Your task to perform on an android device: Show me productivity apps on the Play Store Image 0: 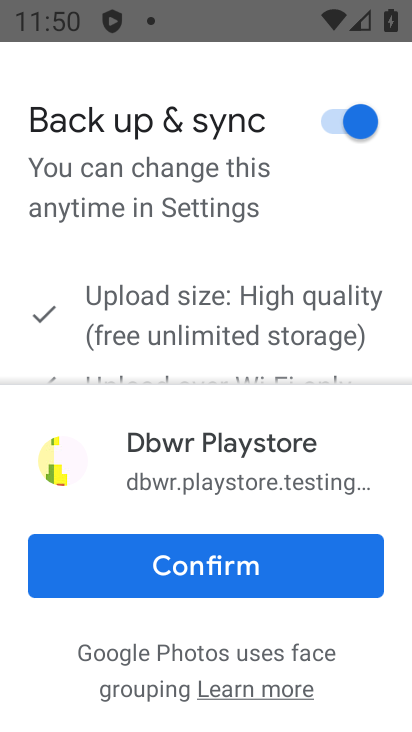
Step 0: press home button
Your task to perform on an android device: Show me productivity apps on the Play Store Image 1: 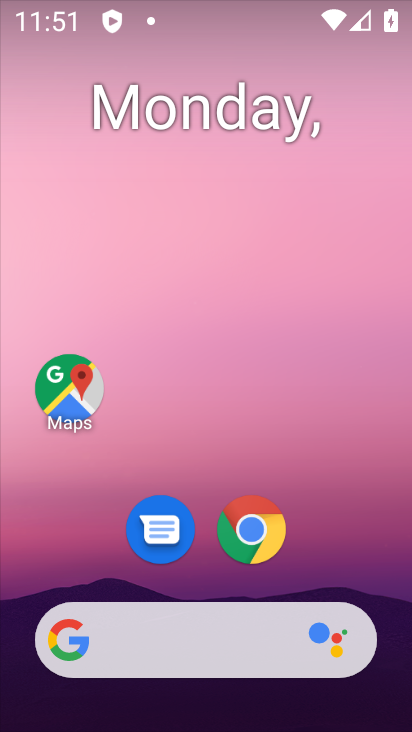
Step 1: drag from (219, 575) to (274, 6)
Your task to perform on an android device: Show me productivity apps on the Play Store Image 2: 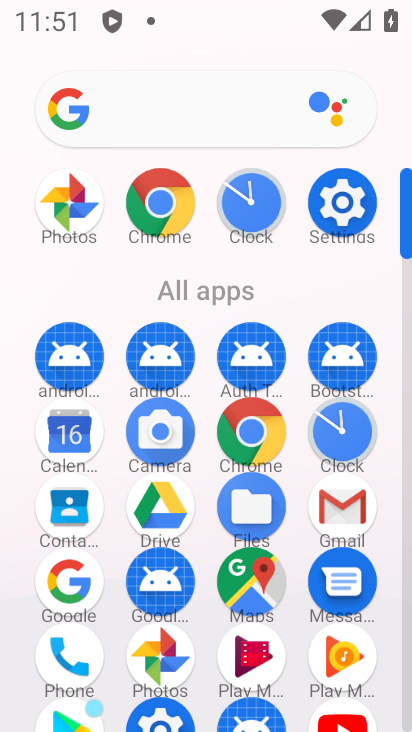
Step 2: drag from (123, 649) to (162, 293)
Your task to perform on an android device: Show me productivity apps on the Play Store Image 3: 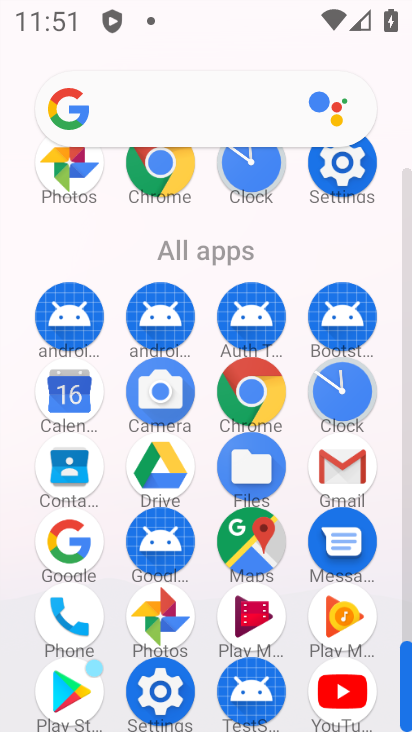
Step 3: click (71, 681)
Your task to perform on an android device: Show me productivity apps on the Play Store Image 4: 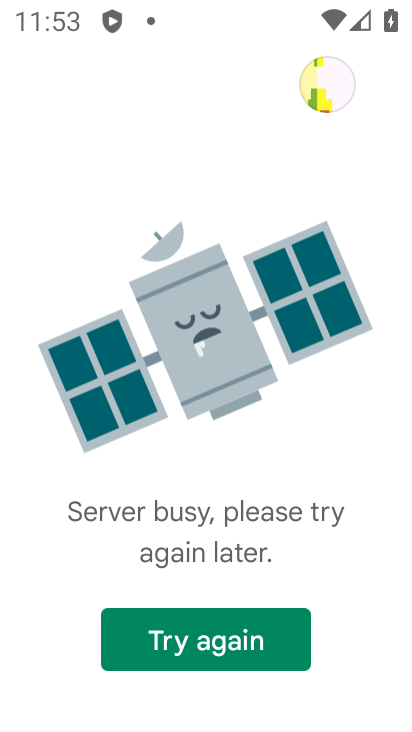
Step 4: task complete